Your task to perform on an android device: Open Google Chrome and open the bookmarks view Image 0: 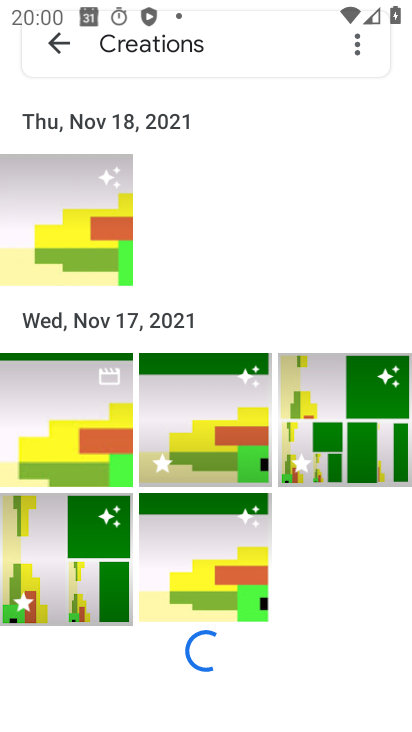
Step 0: press home button
Your task to perform on an android device: Open Google Chrome and open the bookmarks view Image 1: 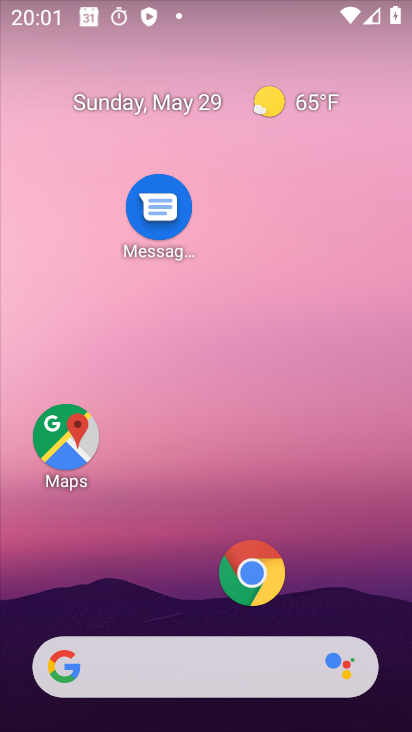
Step 1: drag from (195, 590) to (200, 274)
Your task to perform on an android device: Open Google Chrome and open the bookmarks view Image 2: 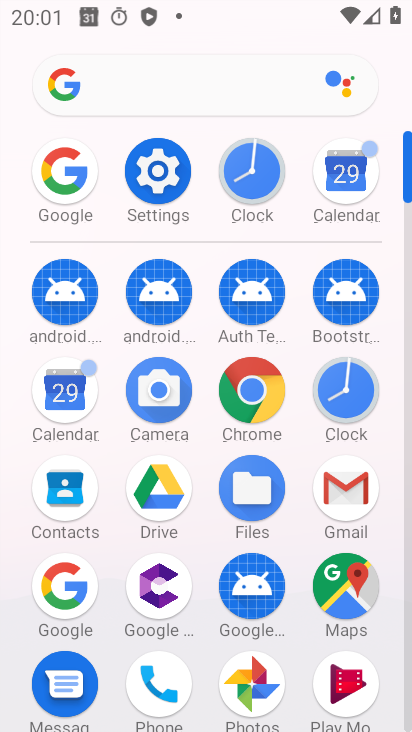
Step 2: click (266, 414)
Your task to perform on an android device: Open Google Chrome and open the bookmarks view Image 3: 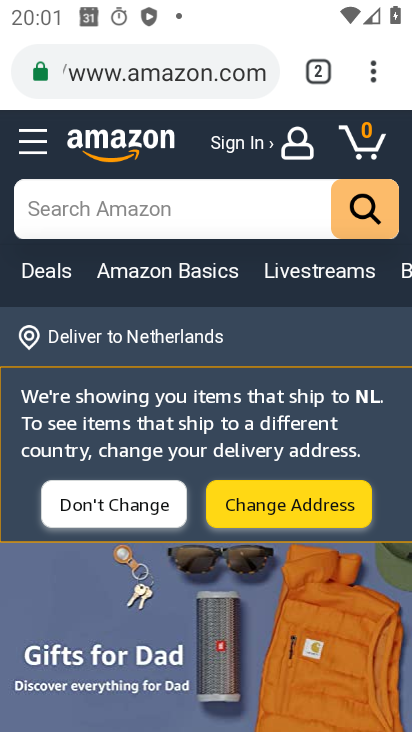
Step 3: drag from (378, 66) to (196, 255)
Your task to perform on an android device: Open Google Chrome and open the bookmarks view Image 4: 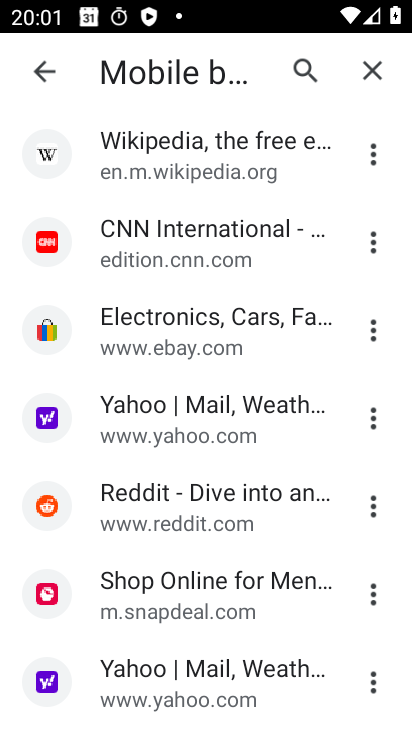
Step 4: drag from (124, 684) to (184, 342)
Your task to perform on an android device: Open Google Chrome and open the bookmarks view Image 5: 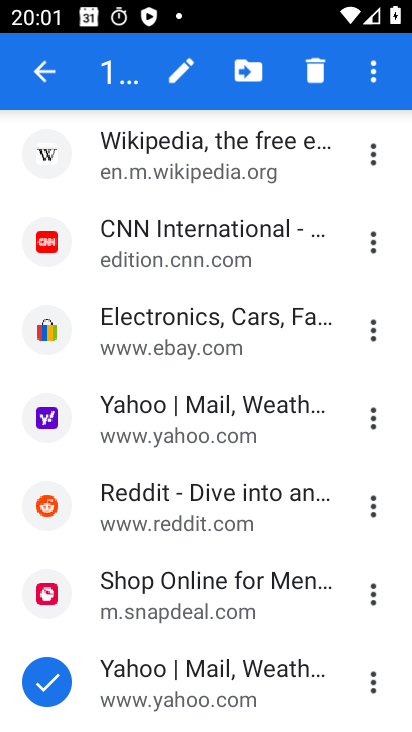
Step 5: drag from (209, 514) to (226, 318)
Your task to perform on an android device: Open Google Chrome and open the bookmarks view Image 6: 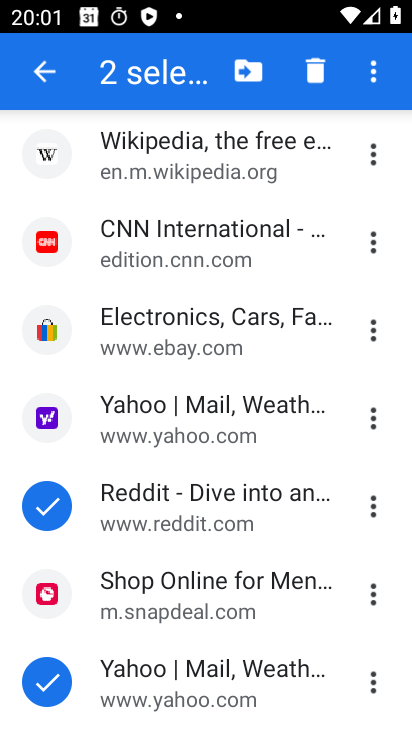
Step 6: click (48, 81)
Your task to perform on an android device: Open Google Chrome and open the bookmarks view Image 7: 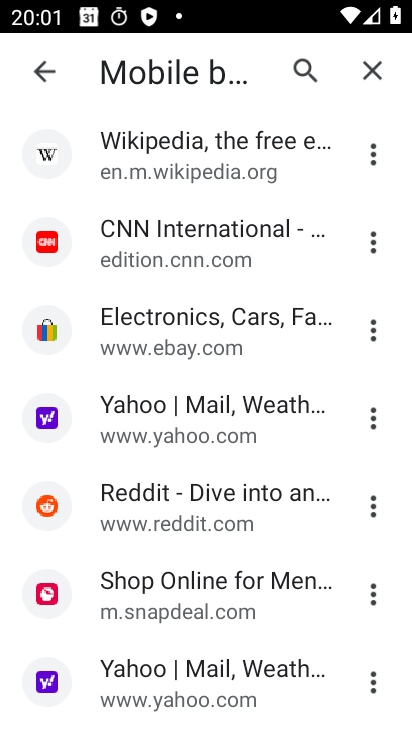
Step 7: drag from (207, 600) to (195, 283)
Your task to perform on an android device: Open Google Chrome and open the bookmarks view Image 8: 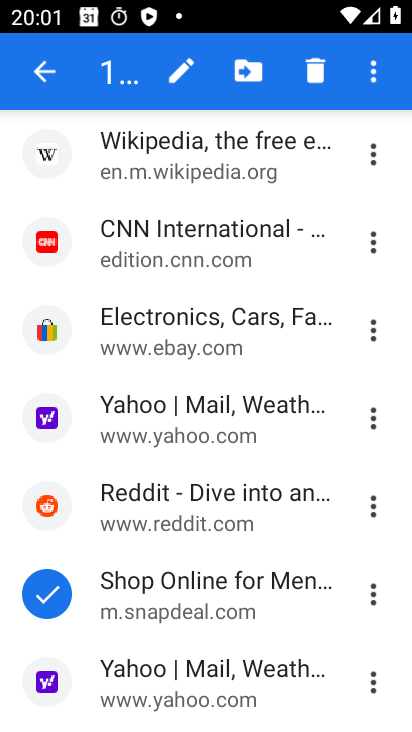
Step 8: click (49, 69)
Your task to perform on an android device: Open Google Chrome and open the bookmarks view Image 9: 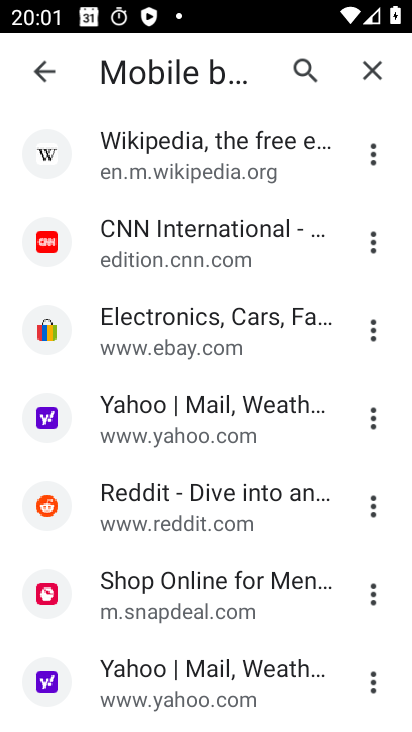
Step 9: task complete